Your task to perform on an android device: Go to Amazon Image 0: 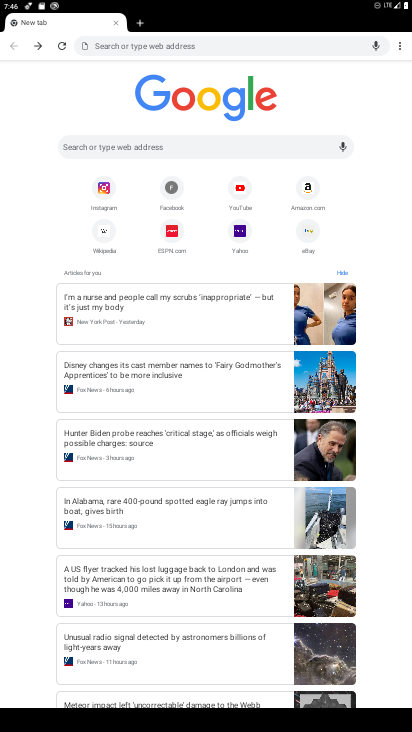
Step 0: click (313, 190)
Your task to perform on an android device: Go to Amazon Image 1: 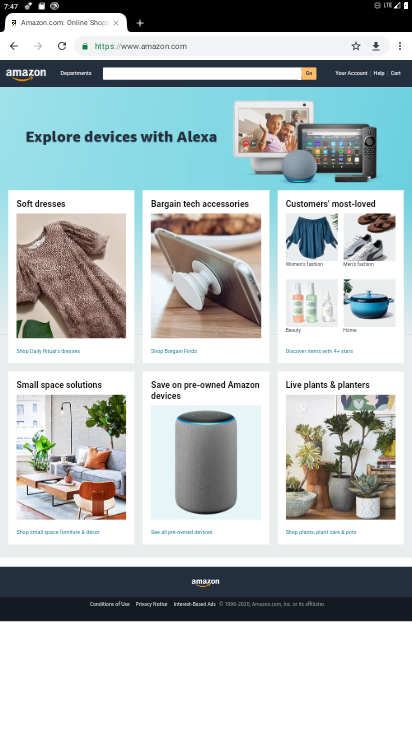
Step 1: task complete